Your task to perform on an android device: turn notification dots on Image 0: 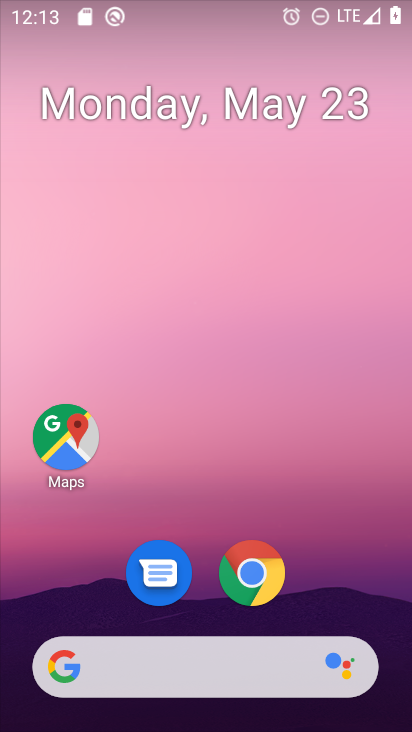
Step 0: drag from (329, 592) to (326, 27)
Your task to perform on an android device: turn notification dots on Image 1: 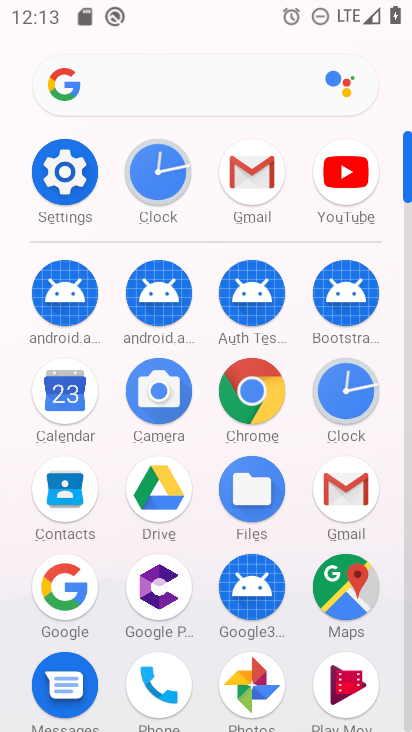
Step 1: click (59, 186)
Your task to perform on an android device: turn notification dots on Image 2: 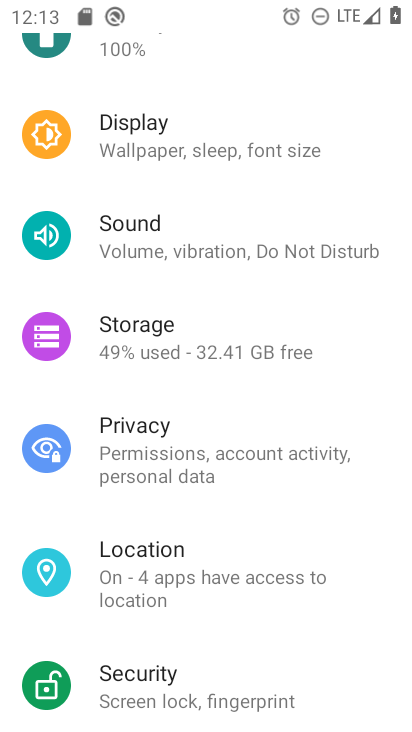
Step 2: drag from (215, 319) to (216, 612)
Your task to perform on an android device: turn notification dots on Image 3: 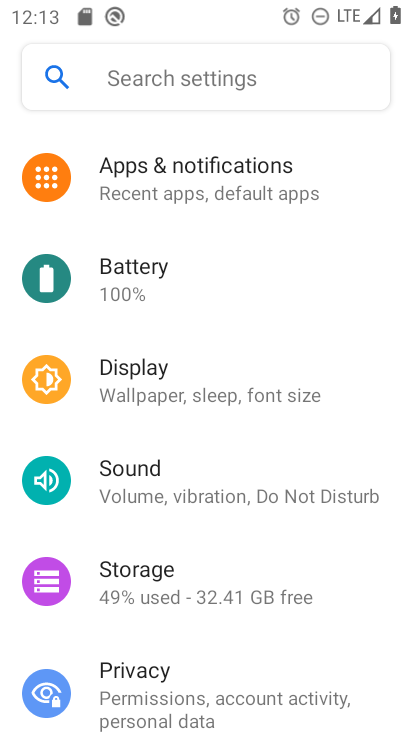
Step 3: click (227, 173)
Your task to perform on an android device: turn notification dots on Image 4: 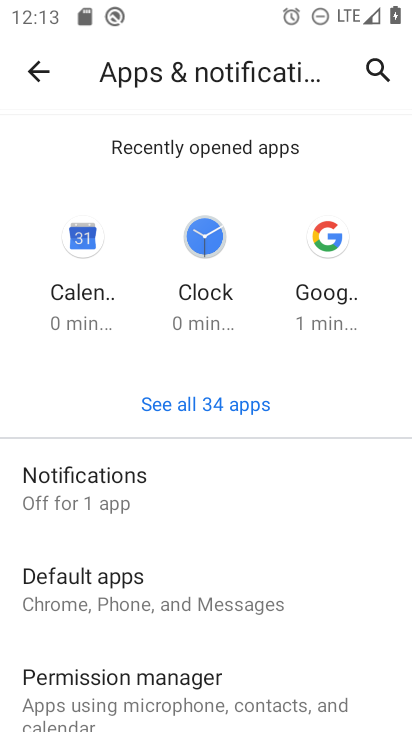
Step 4: click (172, 487)
Your task to perform on an android device: turn notification dots on Image 5: 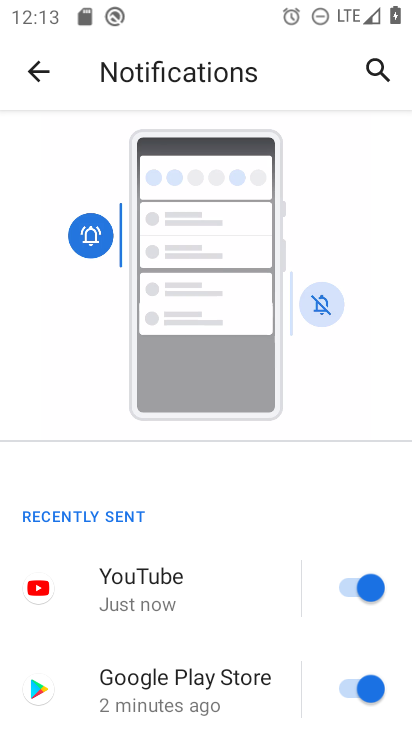
Step 5: drag from (182, 678) to (248, 278)
Your task to perform on an android device: turn notification dots on Image 6: 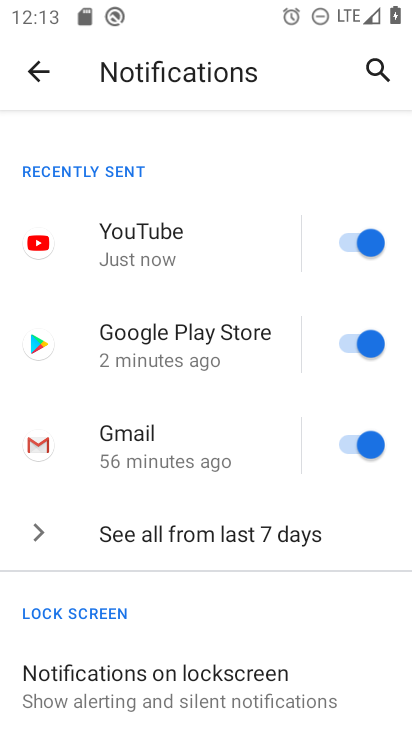
Step 6: drag from (267, 621) to (295, 306)
Your task to perform on an android device: turn notification dots on Image 7: 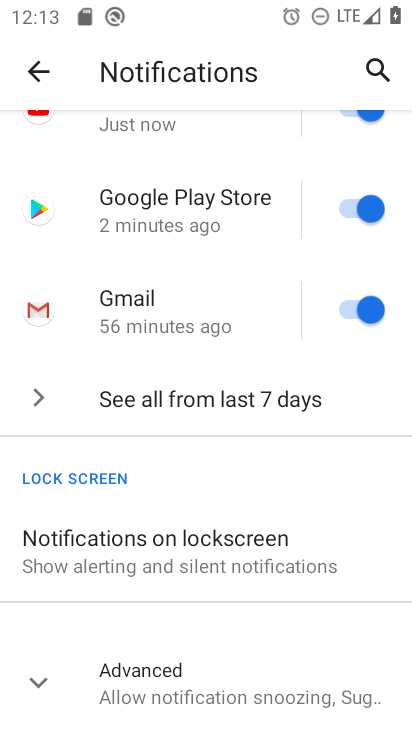
Step 7: click (180, 657)
Your task to perform on an android device: turn notification dots on Image 8: 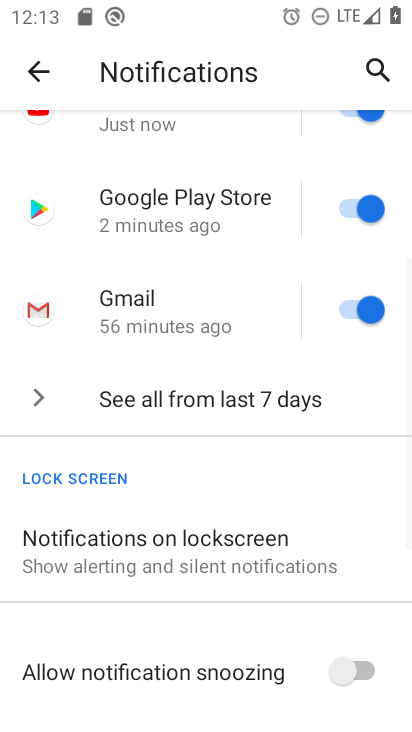
Step 8: task complete